Your task to perform on an android device: turn on priority inbox in the gmail app Image 0: 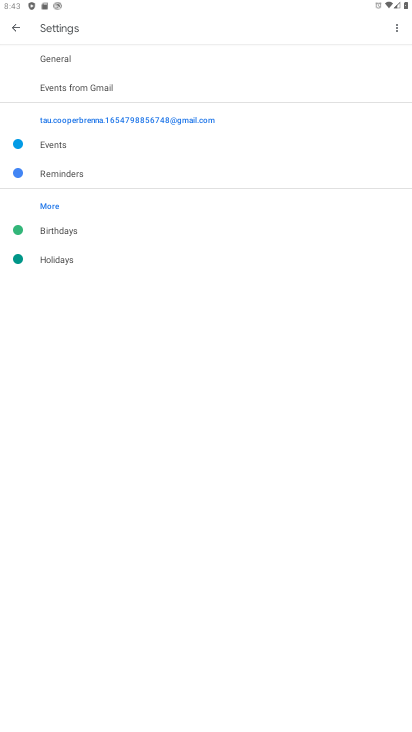
Step 0: press home button
Your task to perform on an android device: turn on priority inbox in the gmail app Image 1: 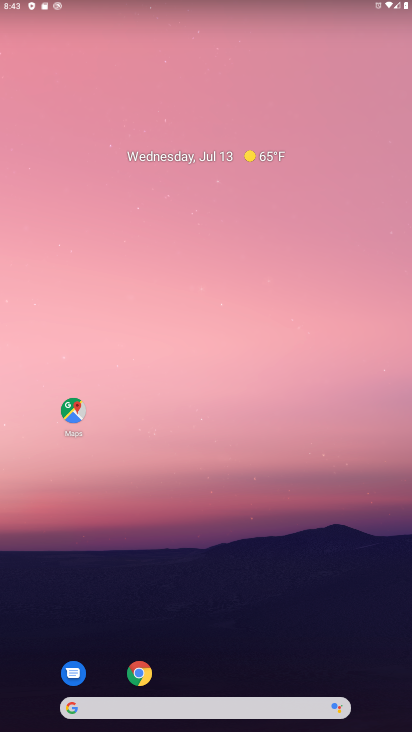
Step 1: drag from (186, 705) to (185, 207)
Your task to perform on an android device: turn on priority inbox in the gmail app Image 2: 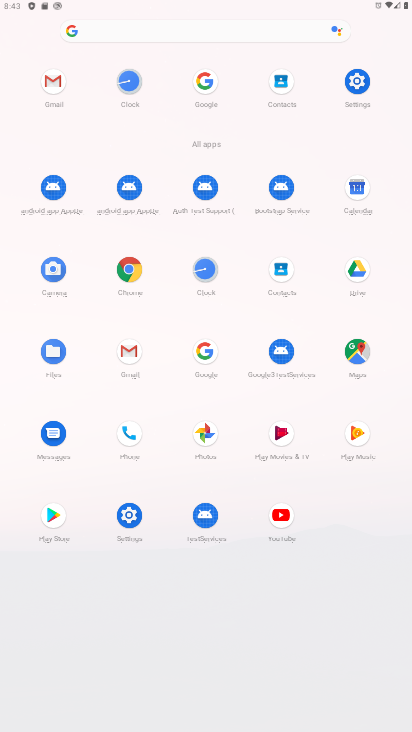
Step 2: click (52, 79)
Your task to perform on an android device: turn on priority inbox in the gmail app Image 3: 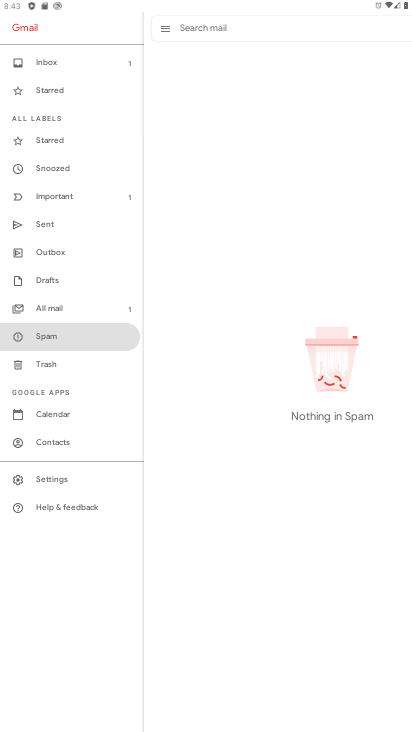
Step 3: click (52, 480)
Your task to perform on an android device: turn on priority inbox in the gmail app Image 4: 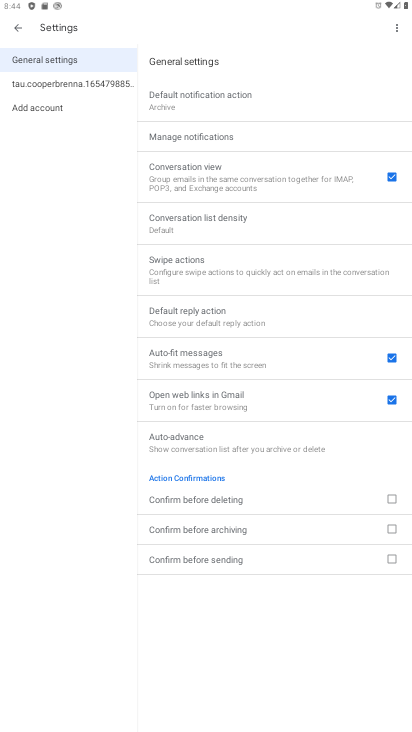
Step 4: click (99, 83)
Your task to perform on an android device: turn on priority inbox in the gmail app Image 5: 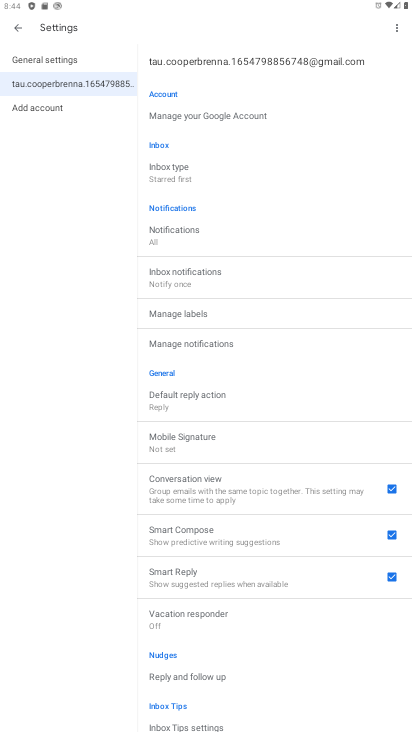
Step 5: click (170, 169)
Your task to perform on an android device: turn on priority inbox in the gmail app Image 6: 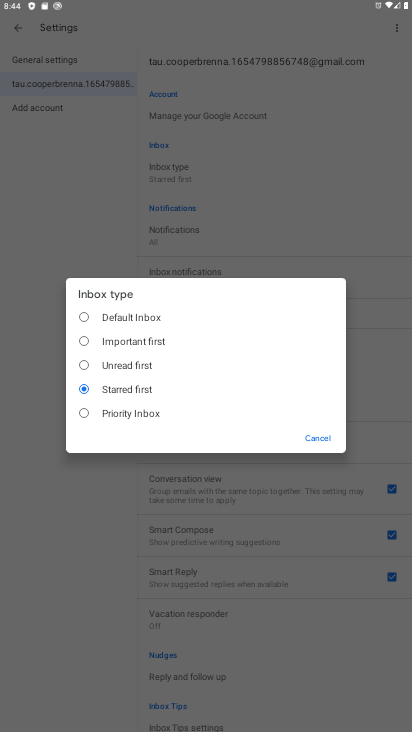
Step 6: click (83, 418)
Your task to perform on an android device: turn on priority inbox in the gmail app Image 7: 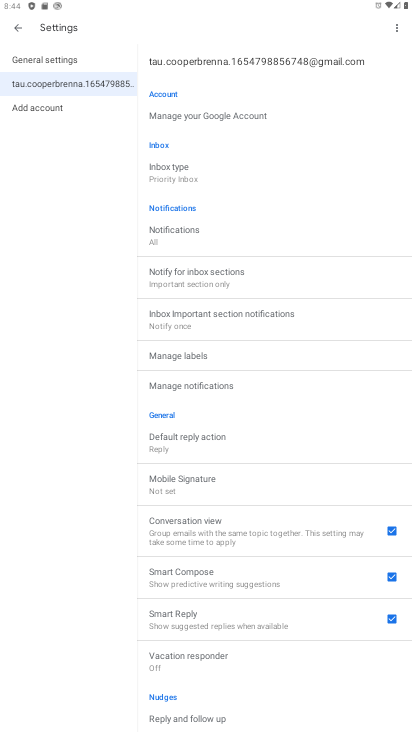
Step 7: task complete